Your task to perform on an android device: Open maps Image 0: 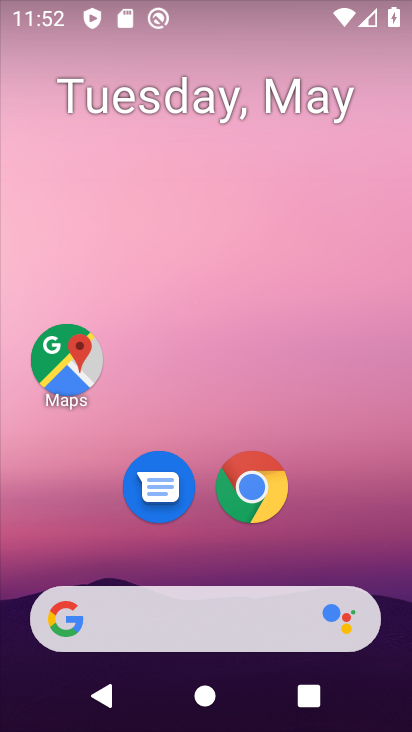
Step 0: click (43, 373)
Your task to perform on an android device: Open maps Image 1: 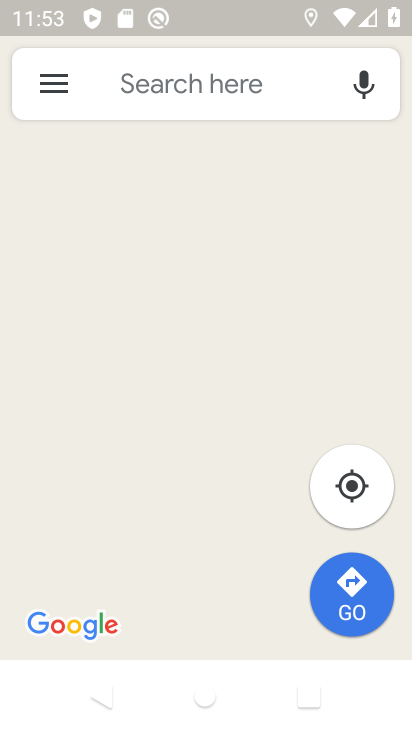
Step 1: task complete